Your task to perform on an android device: Open wifi settings Image 0: 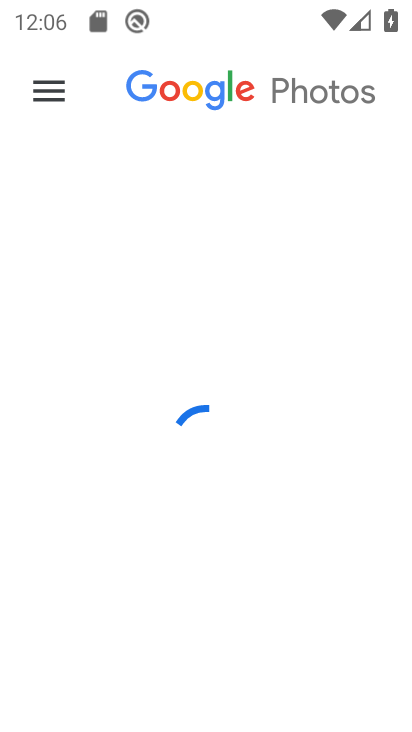
Step 0: press home button
Your task to perform on an android device: Open wifi settings Image 1: 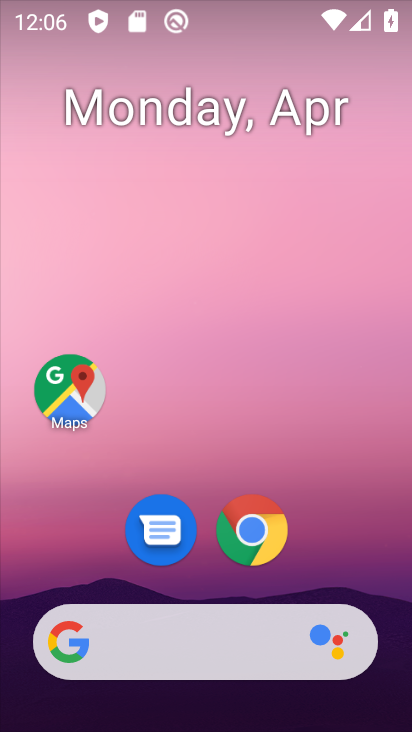
Step 1: drag from (182, 643) to (253, 69)
Your task to perform on an android device: Open wifi settings Image 2: 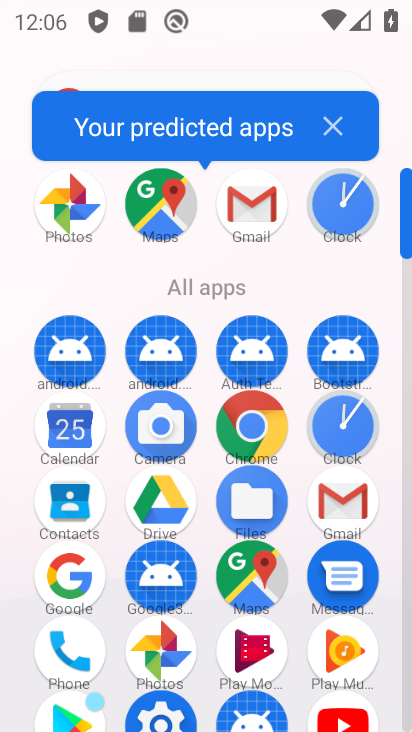
Step 2: drag from (204, 529) to (316, 76)
Your task to perform on an android device: Open wifi settings Image 3: 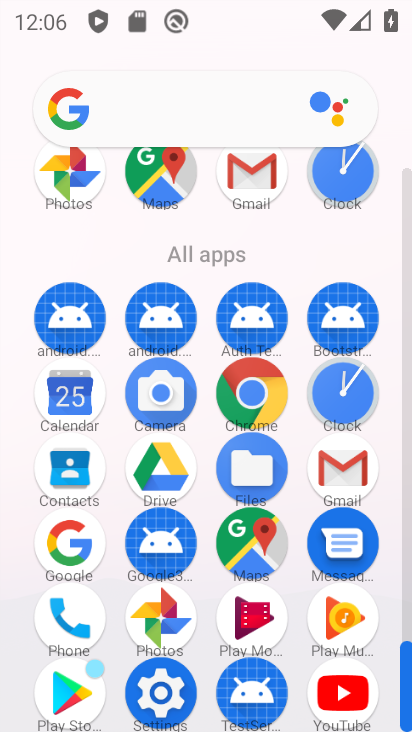
Step 3: click (169, 679)
Your task to perform on an android device: Open wifi settings Image 4: 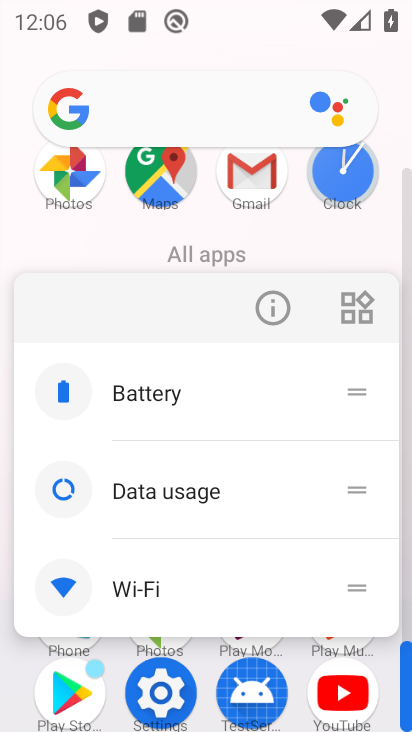
Step 4: click (159, 689)
Your task to perform on an android device: Open wifi settings Image 5: 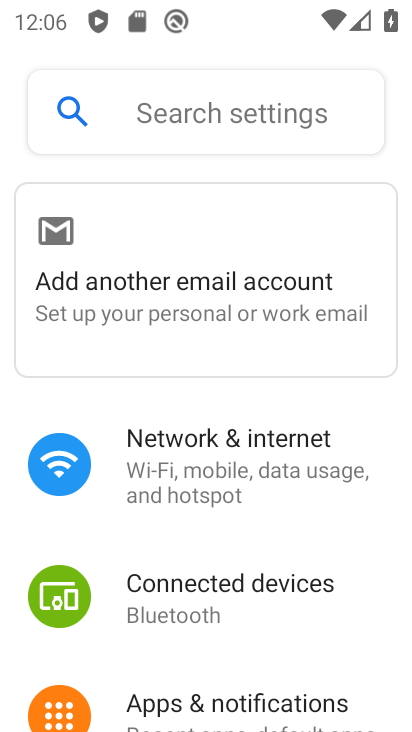
Step 5: click (200, 445)
Your task to perform on an android device: Open wifi settings Image 6: 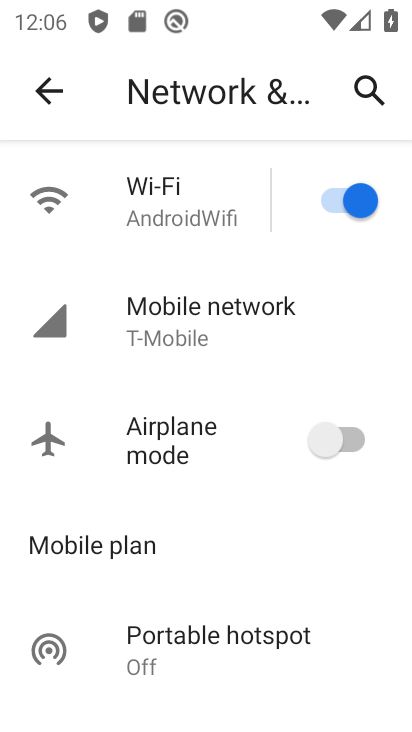
Step 6: click (174, 210)
Your task to perform on an android device: Open wifi settings Image 7: 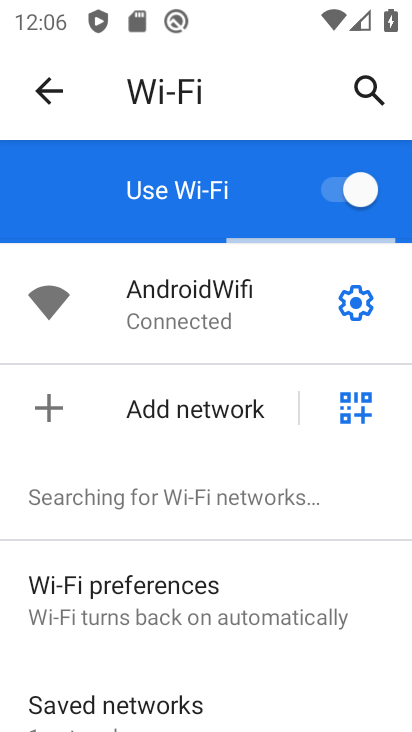
Step 7: task complete